Your task to perform on an android device: move a message to another label in the gmail app Image 0: 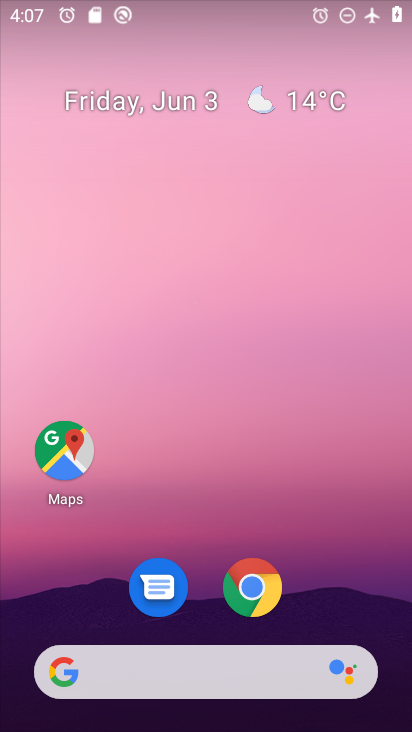
Step 0: drag from (188, 721) to (188, 236)
Your task to perform on an android device: move a message to another label in the gmail app Image 1: 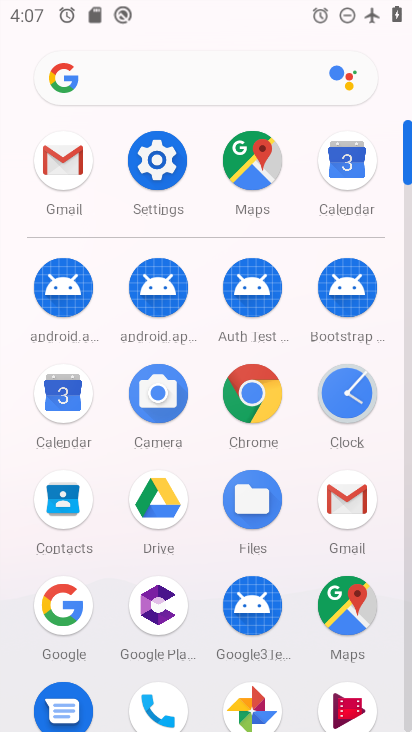
Step 1: click (343, 494)
Your task to perform on an android device: move a message to another label in the gmail app Image 2: 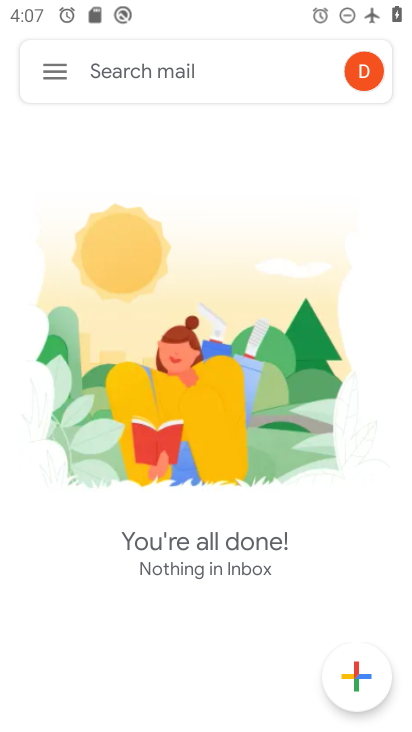
Step 2: click (58, 72)
Your task to perform on an android device: move a message to another label in the gmail app Image 3: 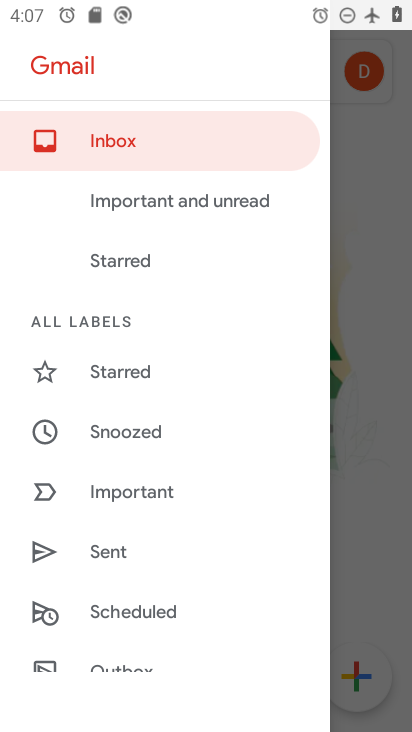
Step 3: click (88, 136)
Your task to perform on an android device: move a message to another label in the gmail app Image 4: 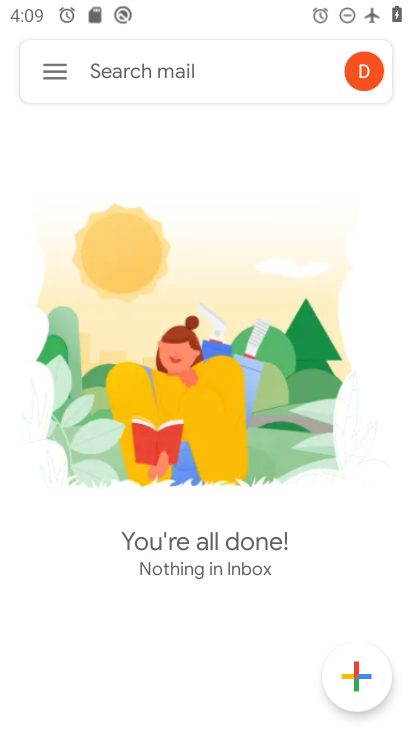
Step 4: task complete